Your task to perform on an android device: Open Chrome and go to settings Image 0: 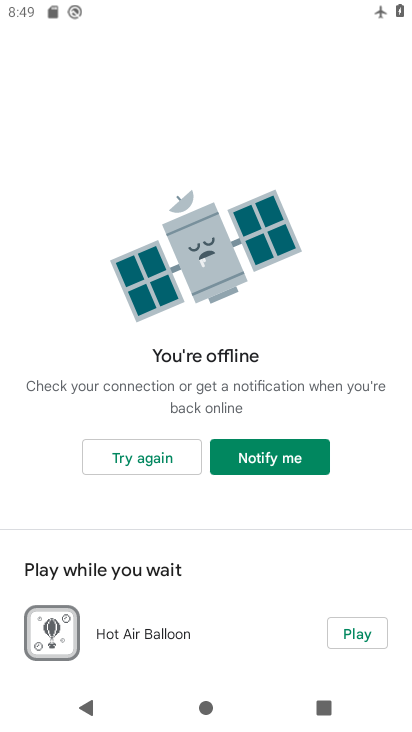
Step 0: press home button
Your task to perform on an android device: Open Chrome and go to settings Image 1: 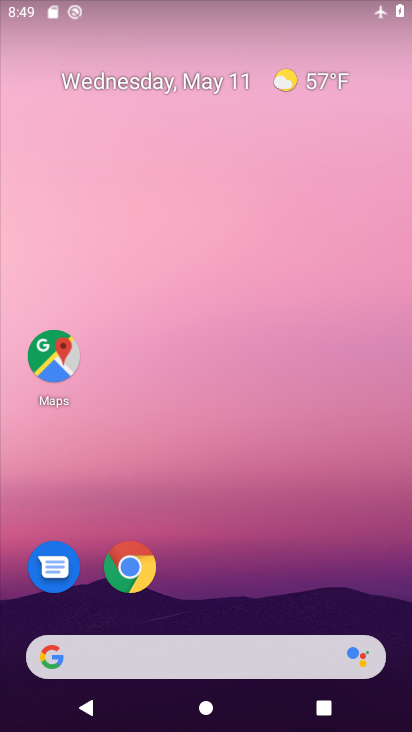
Step 1: click (145, 567)
Your task to perform on an android device: Open Chrome and go to settings Image 2: 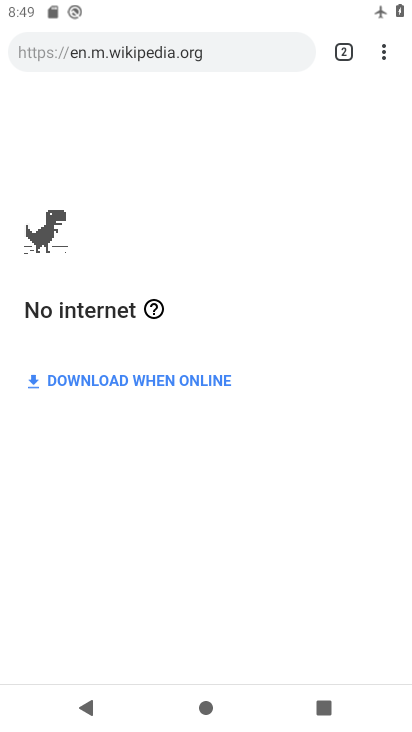
Step 2: click (385, 51)
Your task to perform on an android device: Open Chrome and go to settings Image 3: 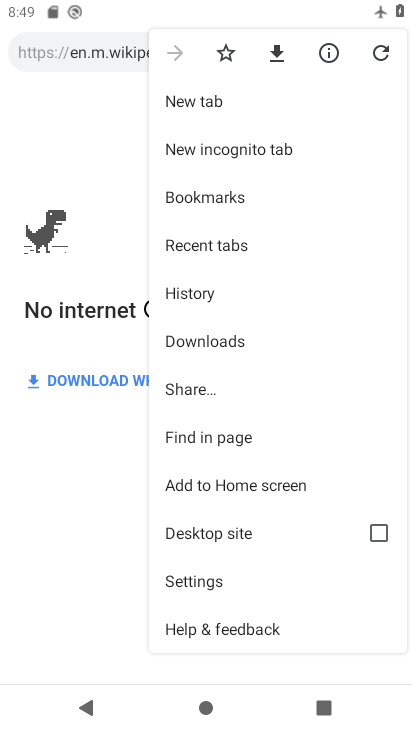
Step 3: click (243, 566)
Your task to perform on an android device: Open Chrome and go to settings Image 4: 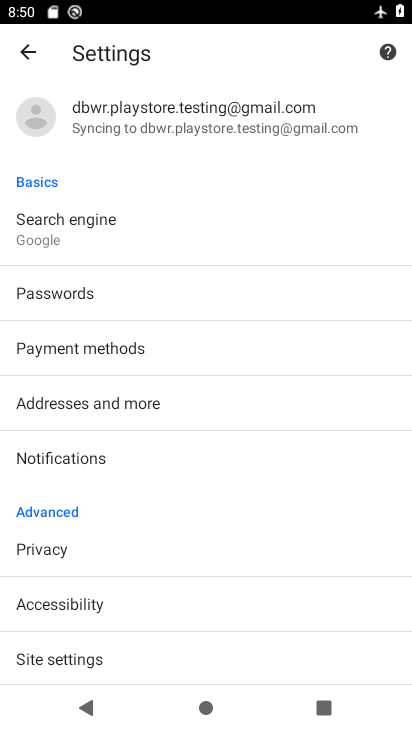
Step 4: task complete